Your task to perform on an android device: snooze an email in the gmail app Image 0: 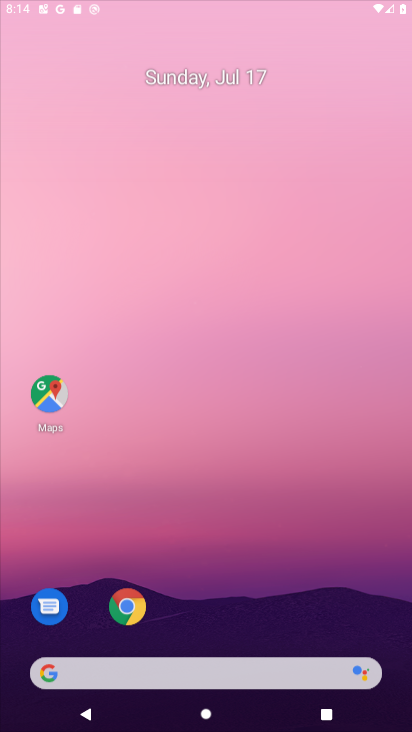
Step 0: click (191, 151)
Your task to perform on an android device: snooze an email in the gmail app Image 1: 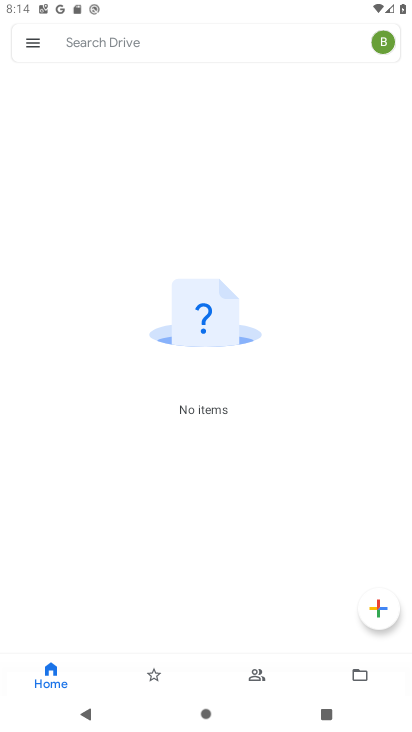
Step 1: press home button
Your task to perform on an android device: snooze an email in the gmail app Image 2: 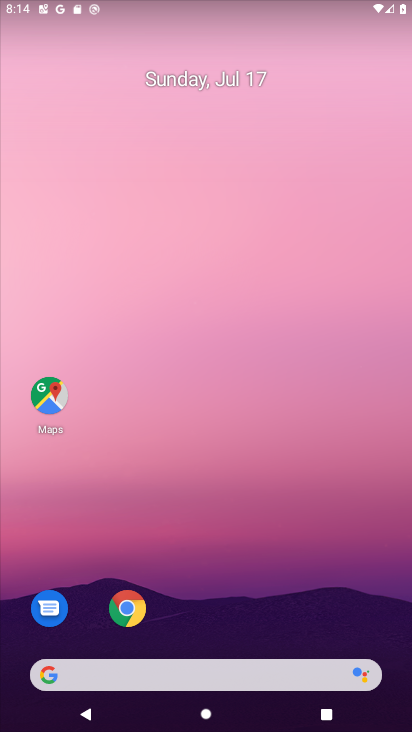
Step 2: drag from (201, 490) to (208, 264)
Your task to perform on an android device: snooze an email in the gmail app Image 3: 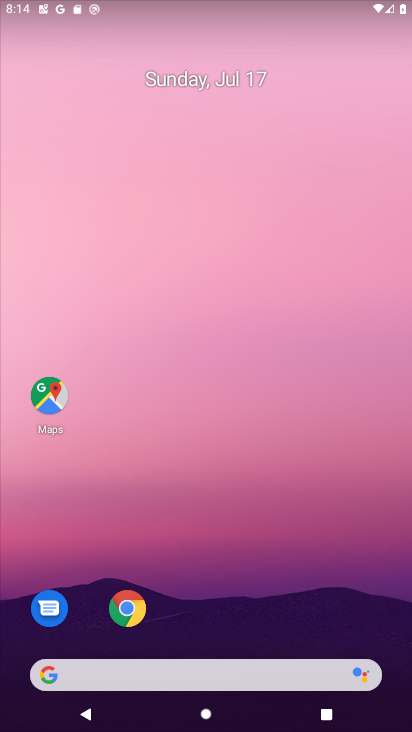
Step 3: drag from (208, 644) to (250, 189)
Your task to perform on an android device: snooze an email in the gmail app Image 4: 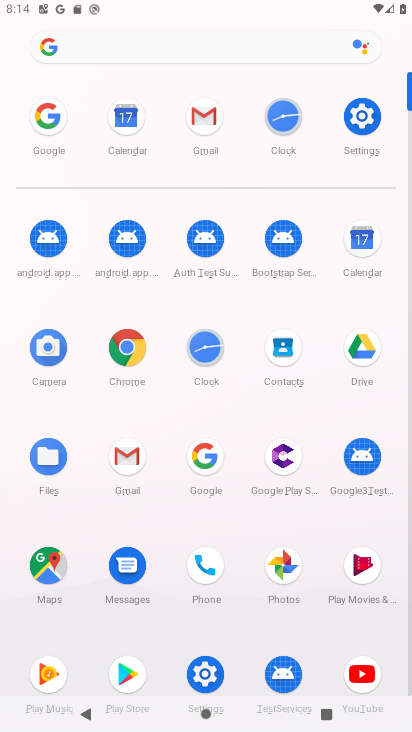
Step 4: click (126, 459)
Your task to perform on an android device: snooze an email in the gmail app Image 5: 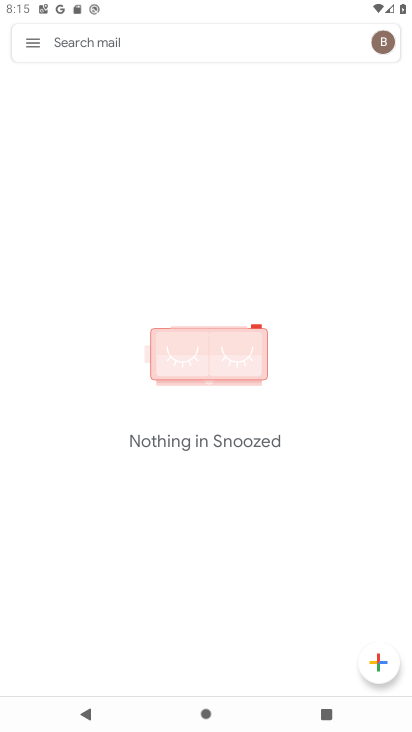
Step 5: click (19, 42)
Your task to perform on an android device: snooze an email in the gmail app Image 6: 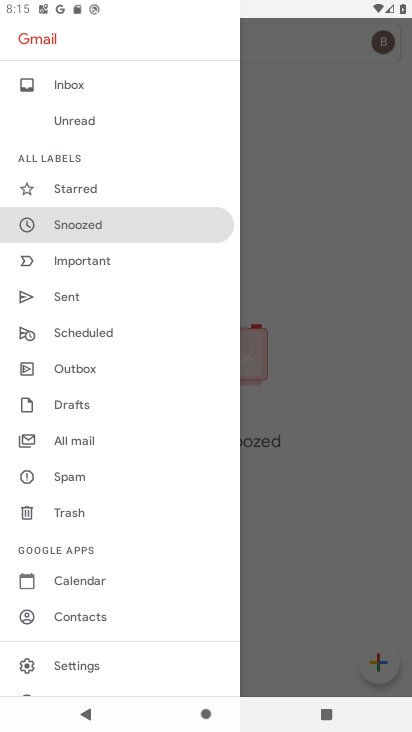
Step 6: click (73, 82)
Your task to perform on an android device: snooze an email in the gmail app Image 7: 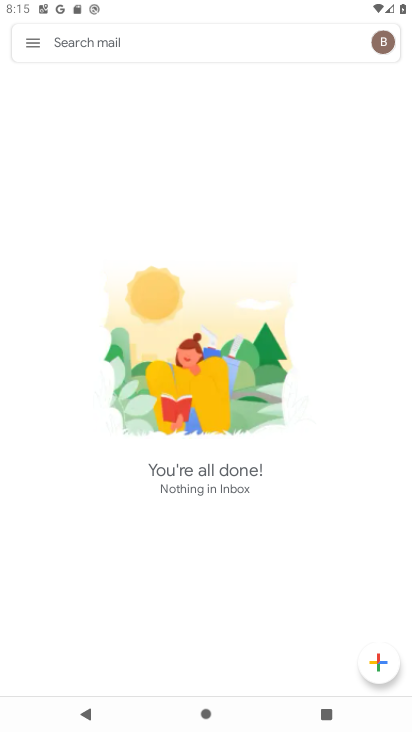
Step 7: task complete